Your task to perform on an android device: turn off location history Image 0: 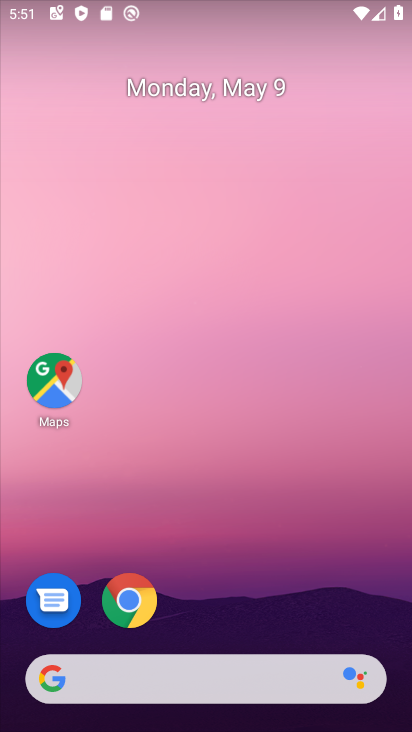
Step 0: drag from (265, 595) to (289, 222)
Your task to perform on an android device: turn off location history Image 1: 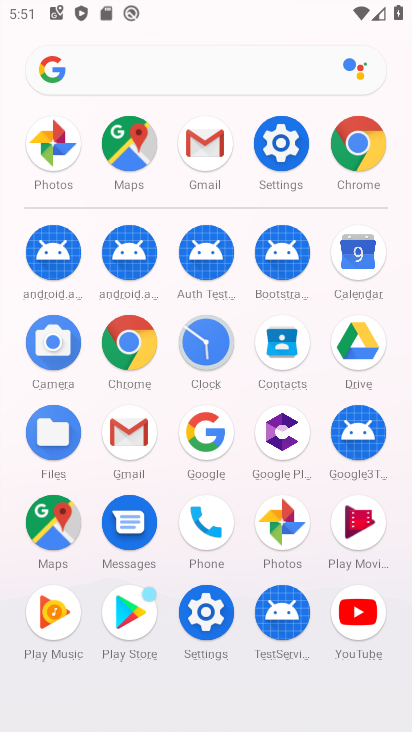
Step 1: click (286, 158)
Your task to perform on an android device: turn off location history Image 2: 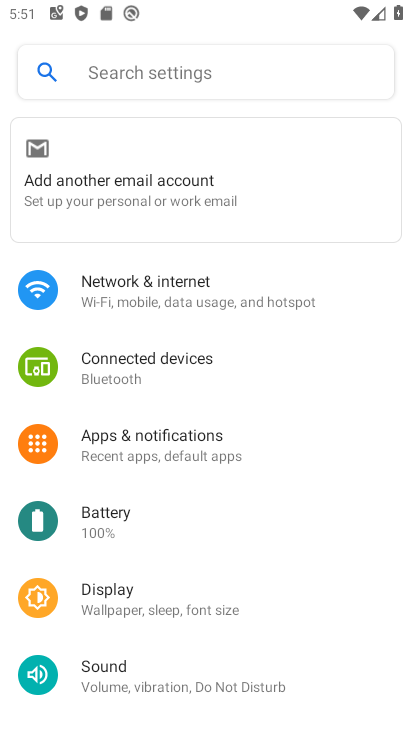
Step 2: drag from (189, 579) to (245, 199)
Your task to perform on an android device: turn off location history Image 3: 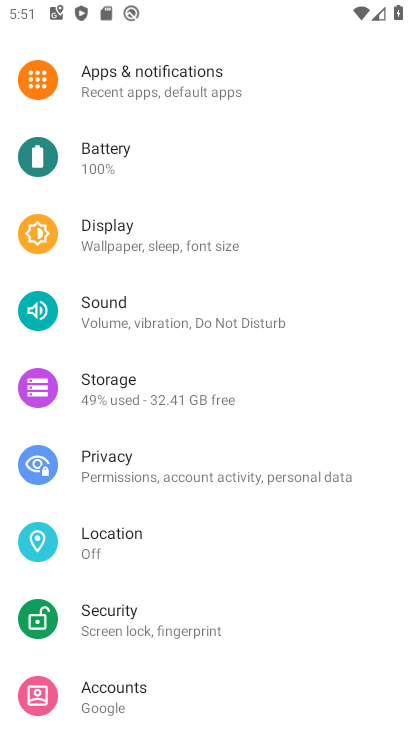
Step 3: click (141, 538)
Your task to perform on an android device: turn off location history Image 4: 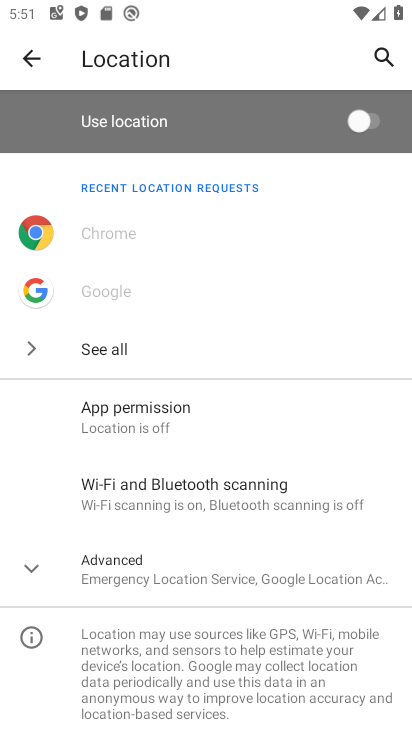
Step 4: click (205, 569)
Your task to perform on an android device: turn off location history Image 5: 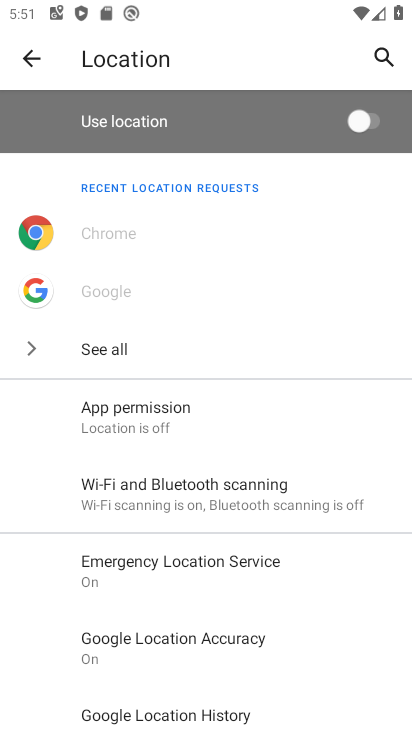
Step 5: drag from (178, 681) to (197, 436)
Your task to perform on an android device: turn off location history Image 6: 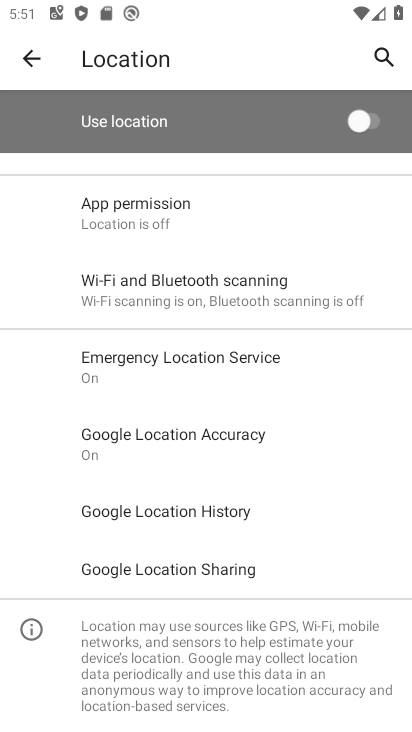
Step 6: click (190, 517)
Your task to perform on an android device: turn off location history Image 7: 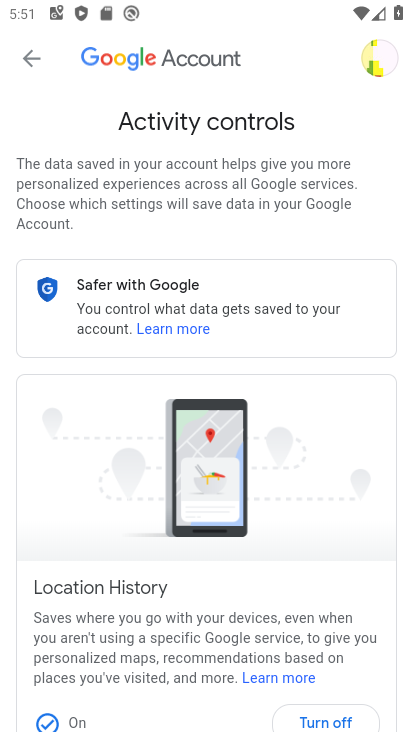
Step 7: drag from (225, 521) to (254, 331)
Your task to perform on an android device: turn off location history Image 8: 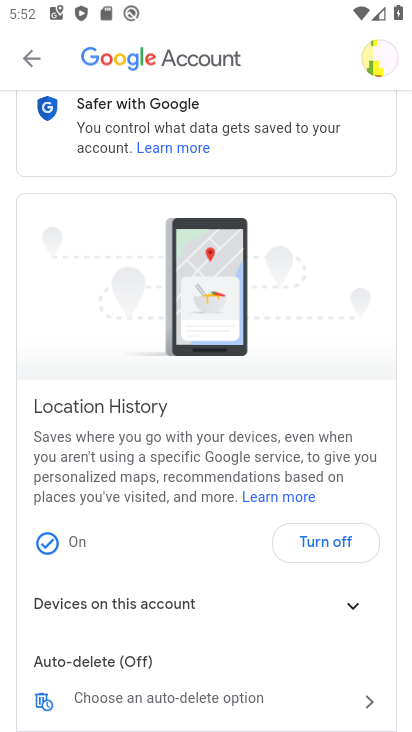
Step 8: click (292, 541)
Your task to perform on an android device: turn off location history Image 9: 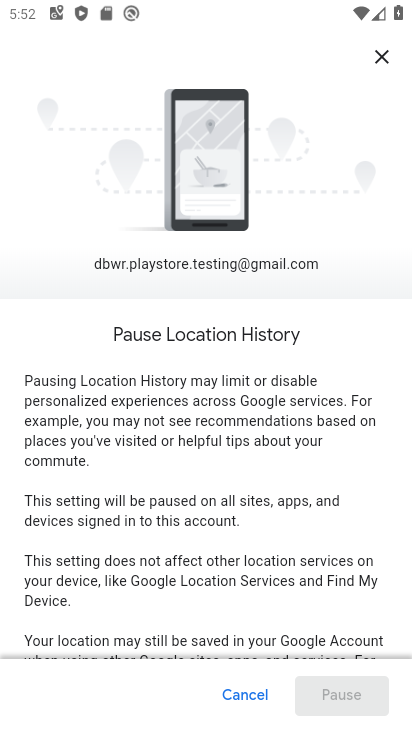
Step 9: drag from (259, 576) to (259, 210)
Your task to perform on an android device: turn off location history Image 10: 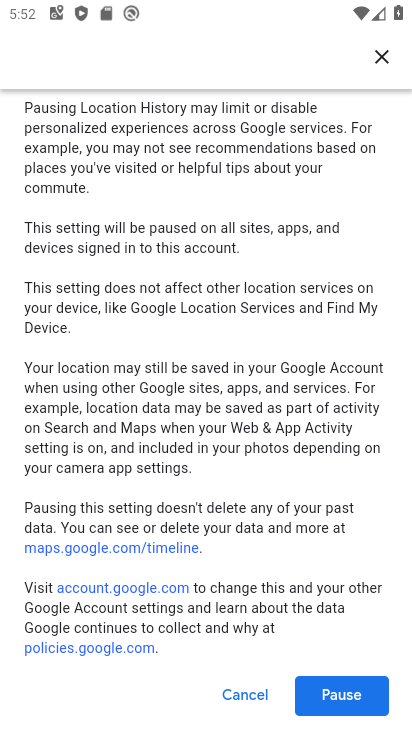
Step 10: drag from (255, 567) to (277, 318)
Your task to perform on an android device: turn off location history Image 11: 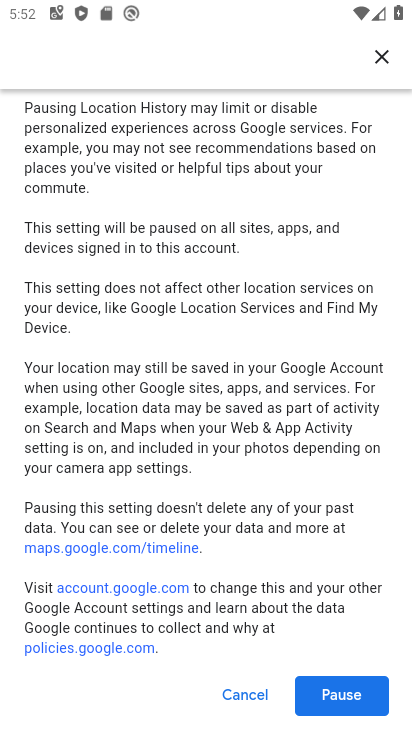
Step 11: click (336, 706)
Your task to perform on an android device: turn off location history Image 12: 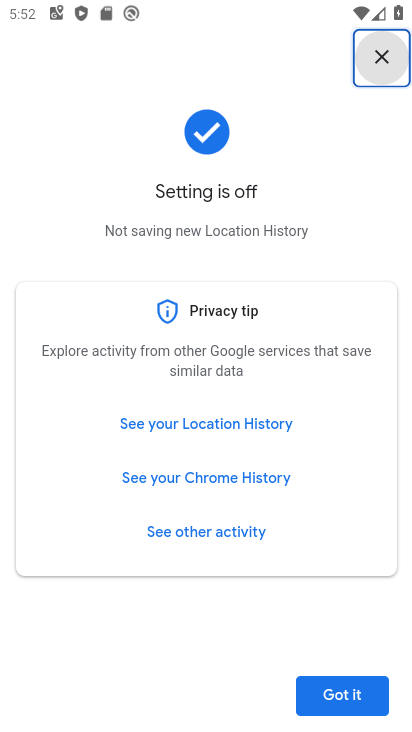
Step 12: click (333, 701)
Your task to perform on an android device: turn off location history Image 13: 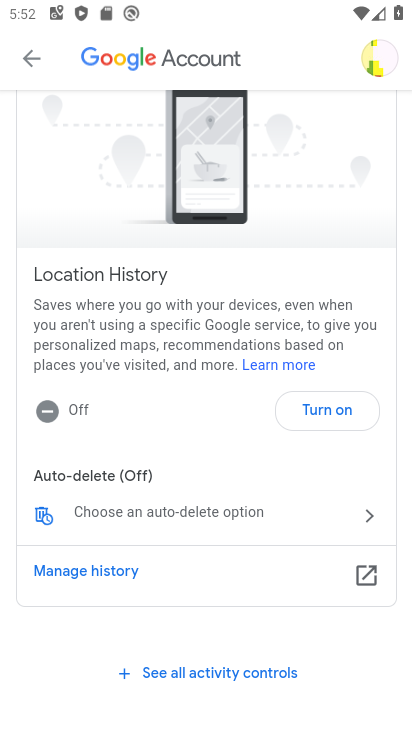
Step 13: task complete